Your task to perform on an android device: Go to settings Image 0: 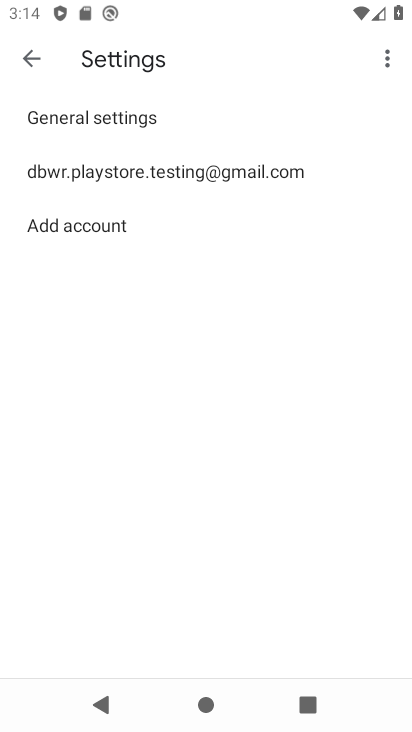
Step 0: press home button
Your task to perform on an android device: Go to settings Image 1: 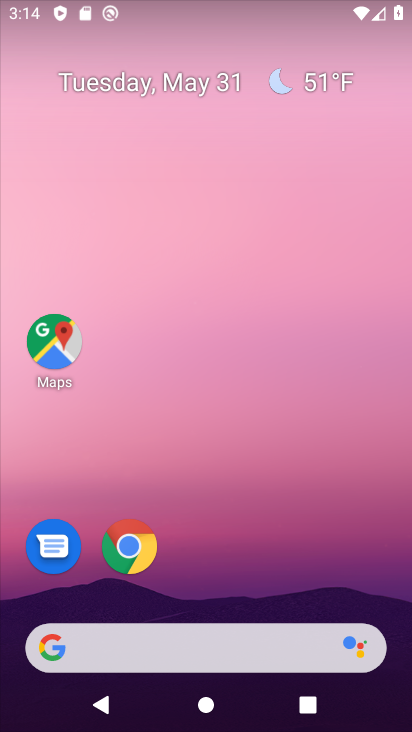
Step 1: drag from (223, 555) to (197, 127)
Your task to perform on an android device: Go to settings Image 2: 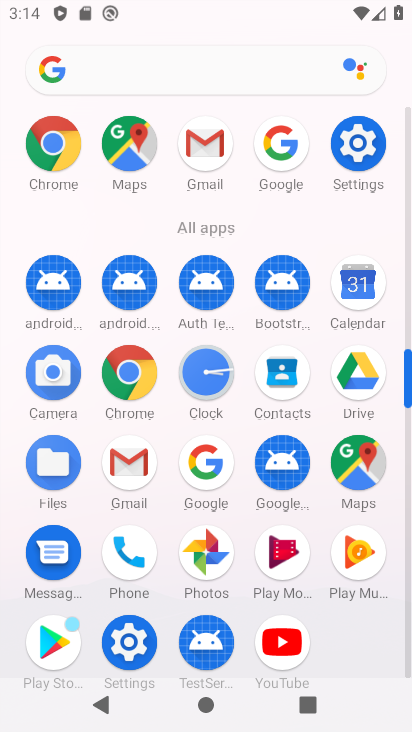
Step 2: click (371, 145)
Your task to perform on an android device: Go to settings Image 3: 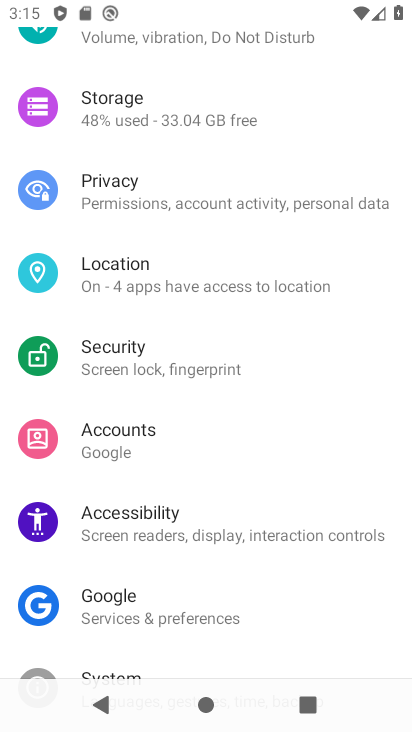
Step 3: task complete